Your task to perform on an android device: open app "VLC for Android" (install if not already installed) Image 0: 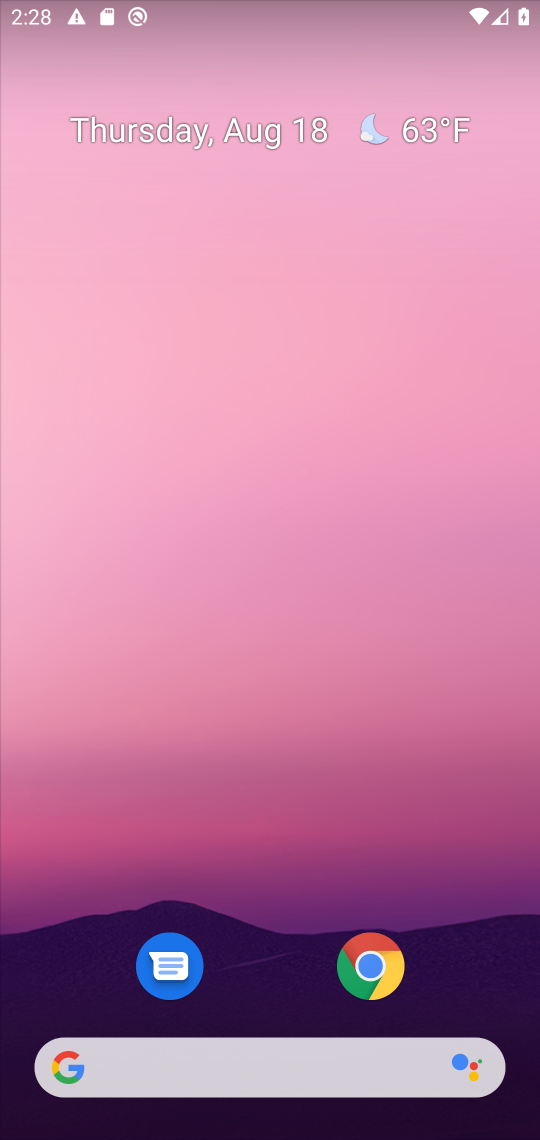
Step 0: drag from (282, 1001) to (376, 133)
Your task to perform on an android device: open app "VLC for Android" (install if not already installed) Image 1: 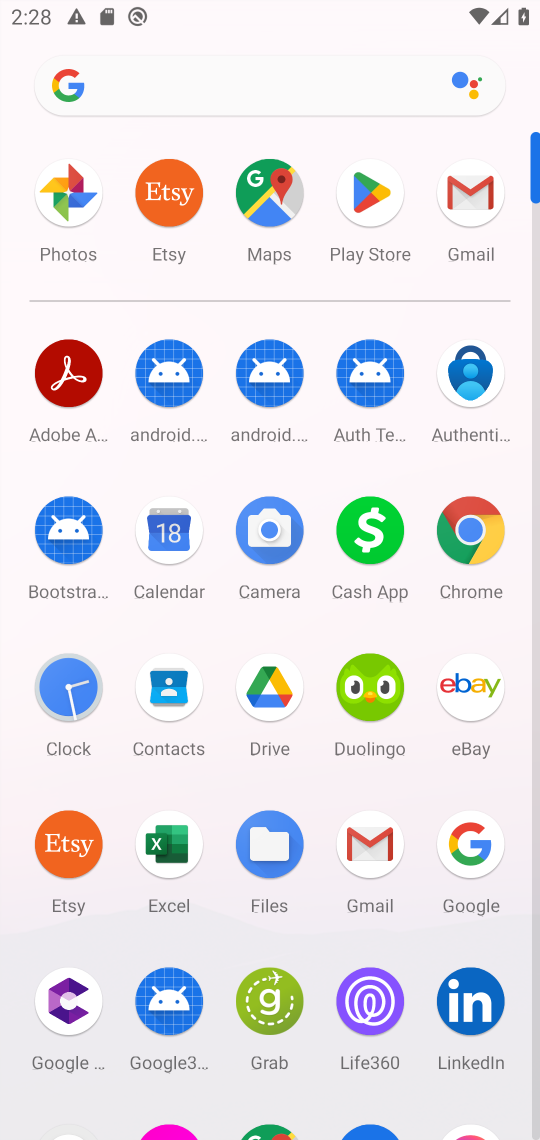
Step 1: click (364, 185)
Your task to perform on an android device: open app "VLC for Android" (install if not already installed) Image 2: 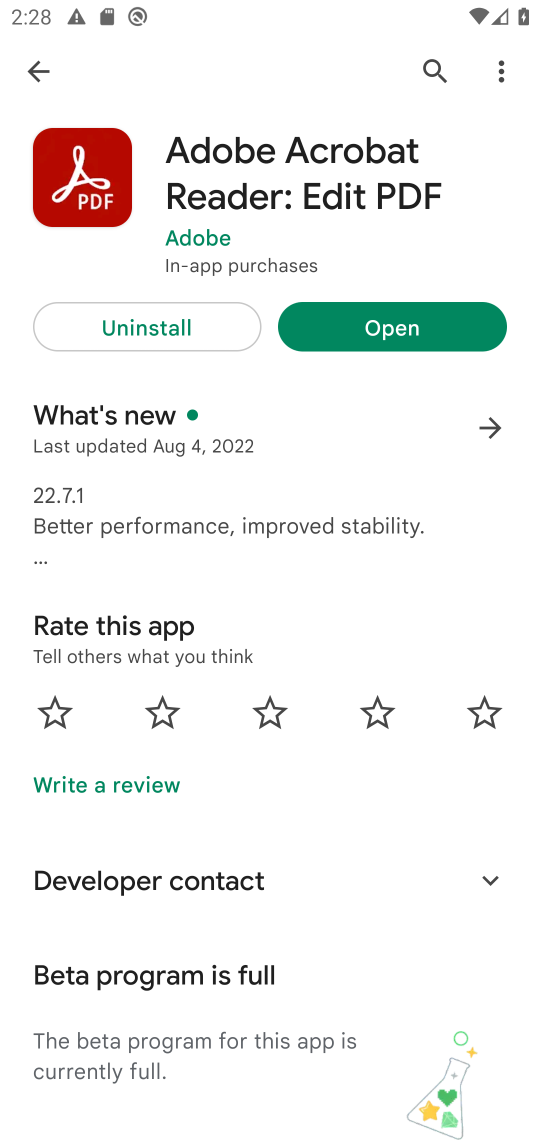
Step 2: click (439, 71)
Your task to perform on an android device: open app "VLC for Android" (install if not already installed) Image 3: 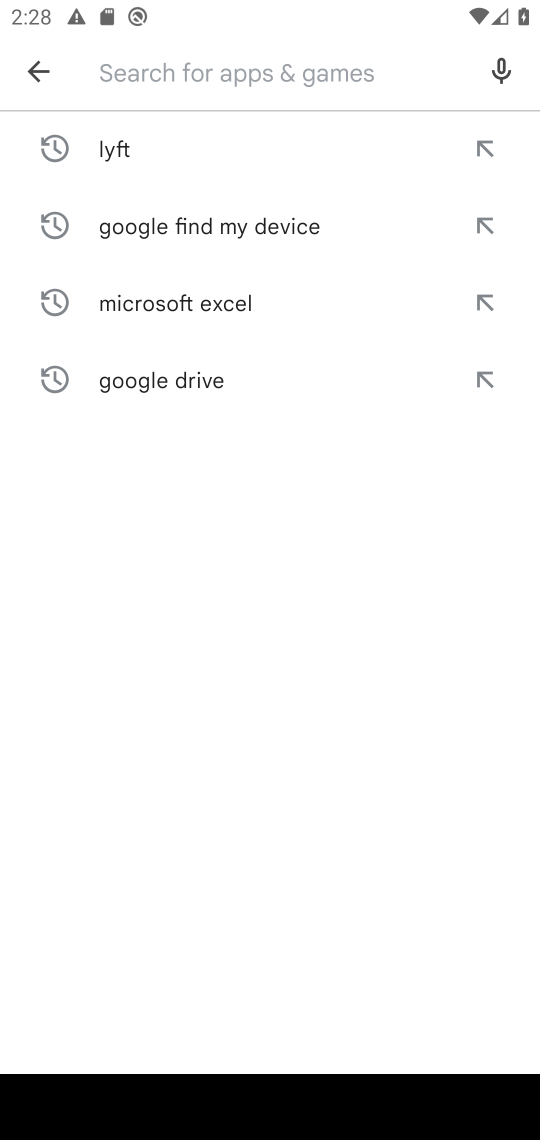
Step 3: type "VLC for Android"
Your task to perform on an android device: open app "VLC for Android" (install if not already installed) Image 4: 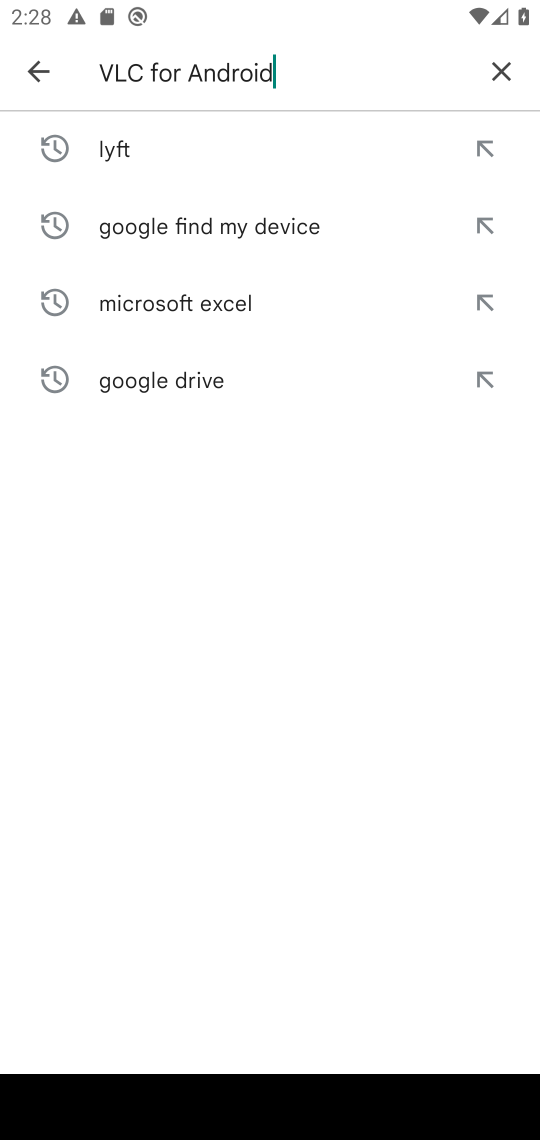
Step 4: type ""
Your task to perform on an android device: open app "VLC for Android" (install if not already installed) Image 5: 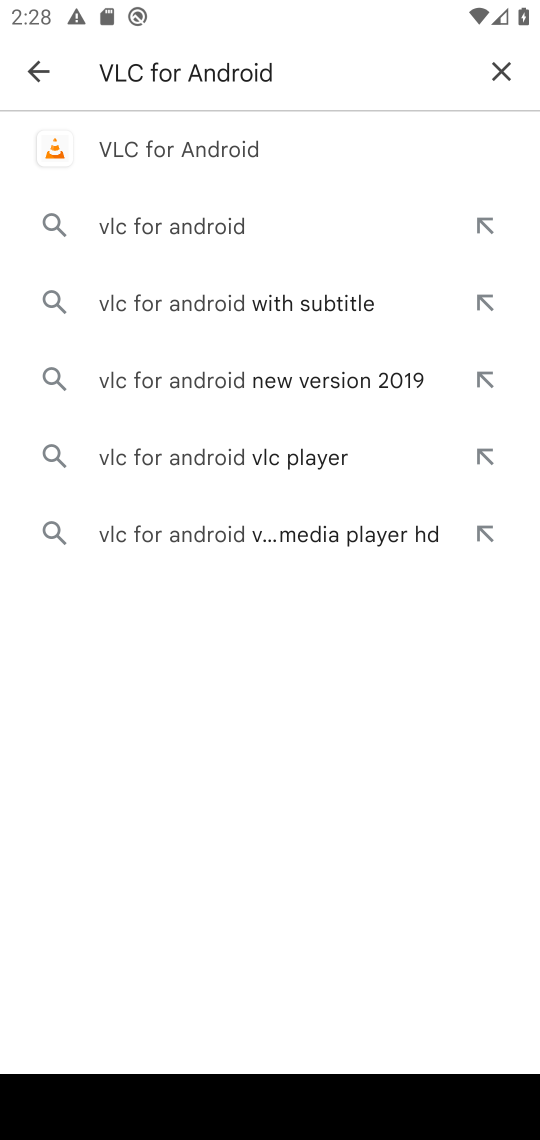
Step 5: click (131, 158)
Your task to perform on an android device: open app "VLC for Android" (install if not already installed) Image 6: 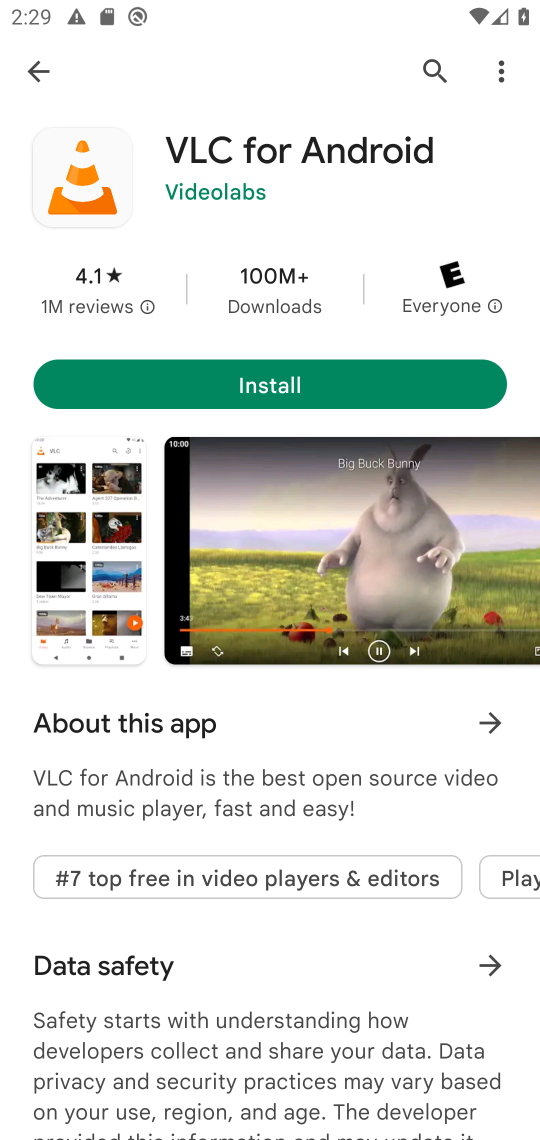
Step 6: click (289, 382)
Your task to perform on an android device: open app "VLC for Android" (install if not already installed) Image 7: 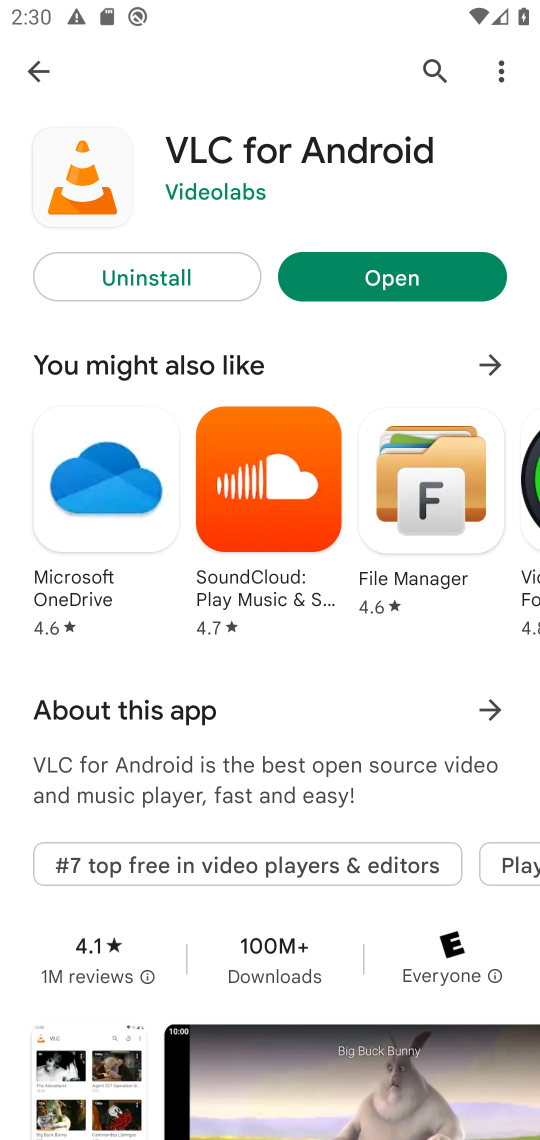
Step 7: click (395, 274)
Your task to perform on an android device: open app "VLC for Android" (install if not already installed) Image 8: 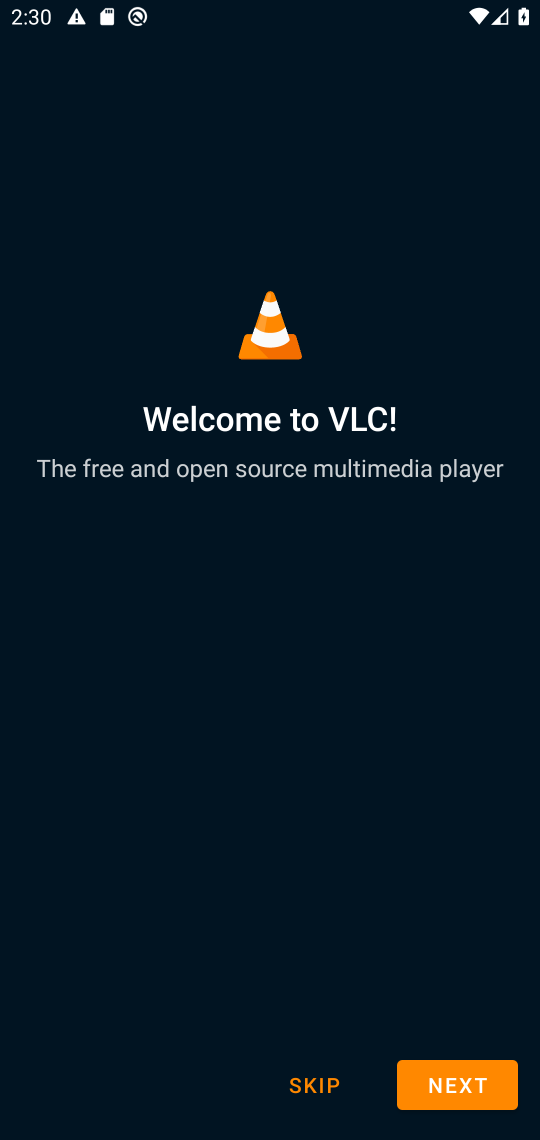
Step 8: click (317, 1079)
Your task to perform on an android device: open app "VLC for Android" (install if not already installed) Image 9: 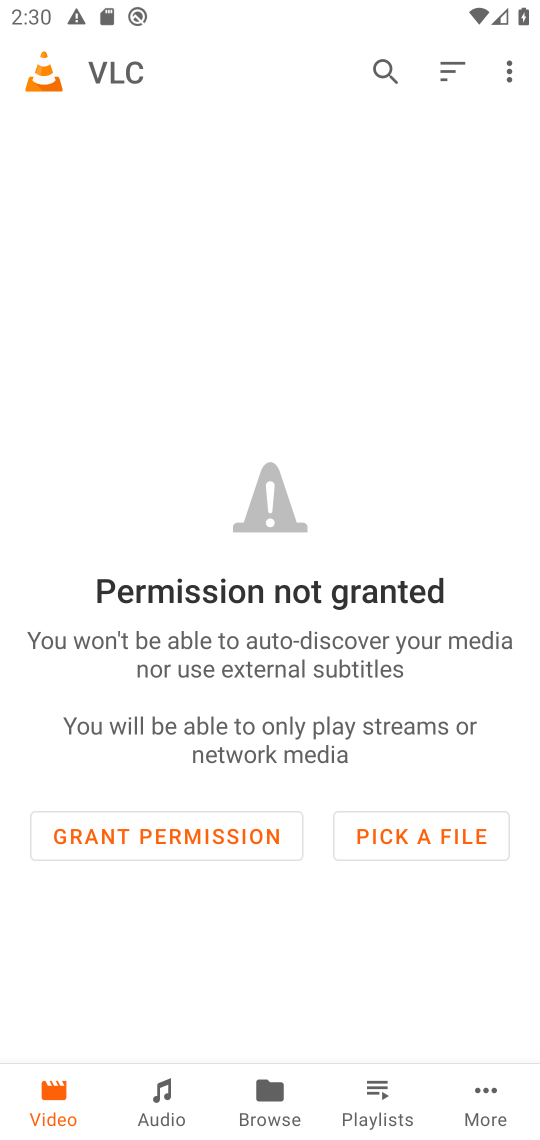
Step 9: task complete